Your task to perform on an android device: search for starred emails in the gmail app Image 0: 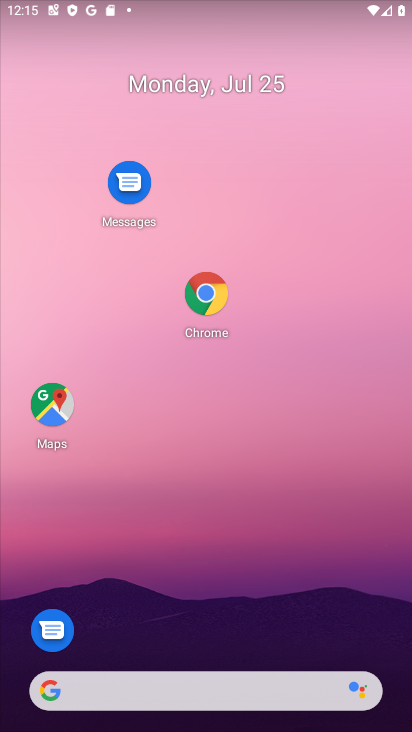
Step 0: press home button
Your task to perform on an android device: search for starred emails in the gmail app Image 1: 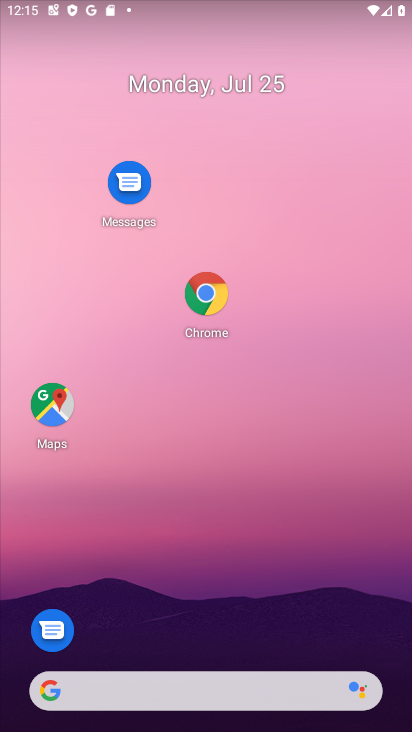
Step 1: drag from (227, 532) to (29, 475)
Your task to perform on an android device: search for starred emails in the gmail app Image 2: 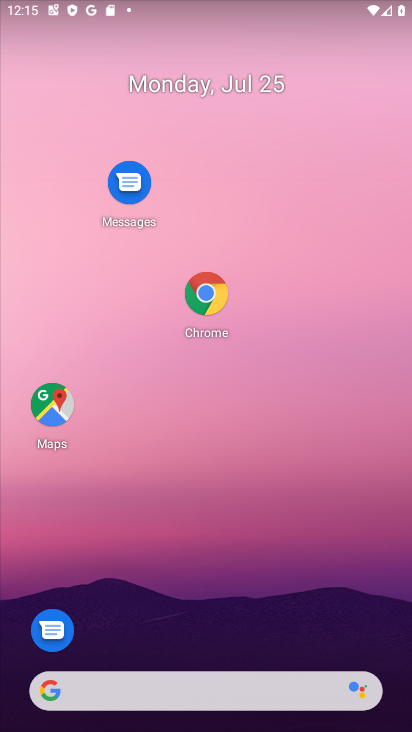
Step 2: drag from (299, 650) to (87, 88)
Your task to perform on an android device: search for starred emails in the gmail app Image 3: 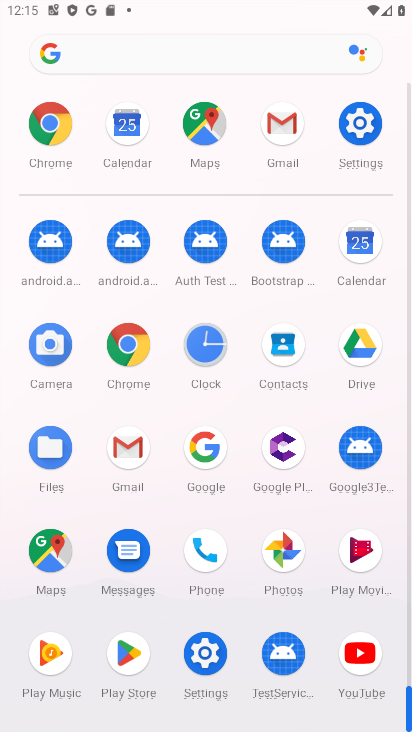
Step 3: click (112, 456)
Your task to perform on an android device: search for starred emails in the gmail app Image 4: 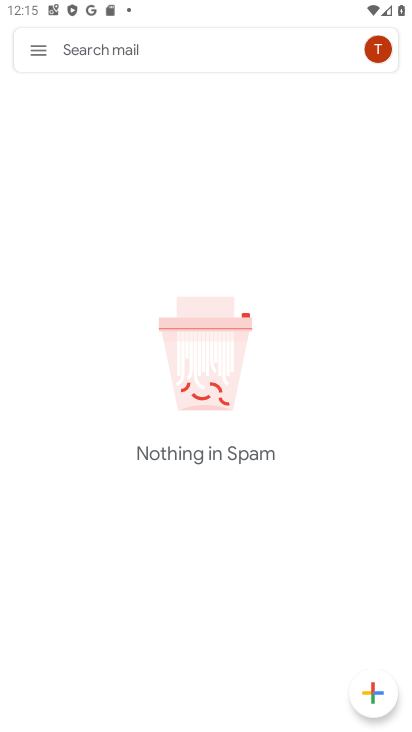
Step 4: click (31, 53)
Your task to perform on an android device: search for starred emails in the gmail app Image 5: 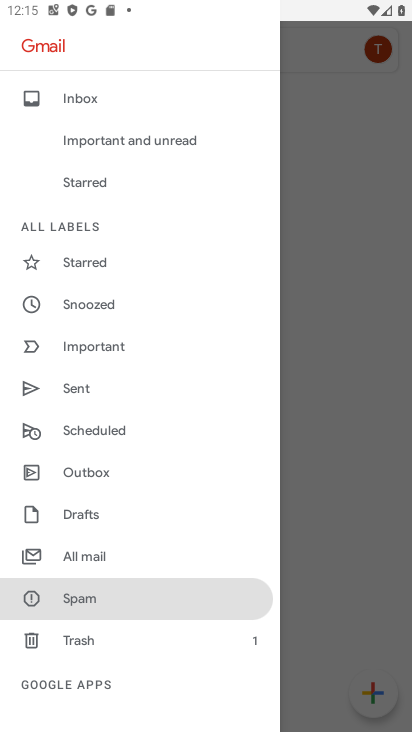
Step 5: click (45, 271)
Your task to perform on an android device: search for starred emails in the gmail app Image 6: 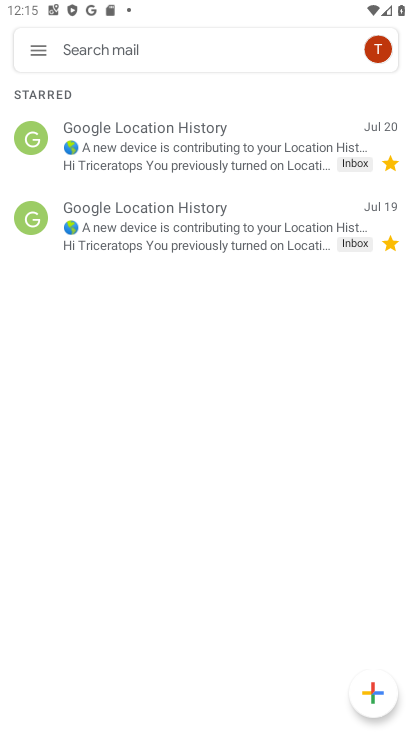
Step 6: task complete